Your task to perform on an android device: change alarm snooze length Image 0: 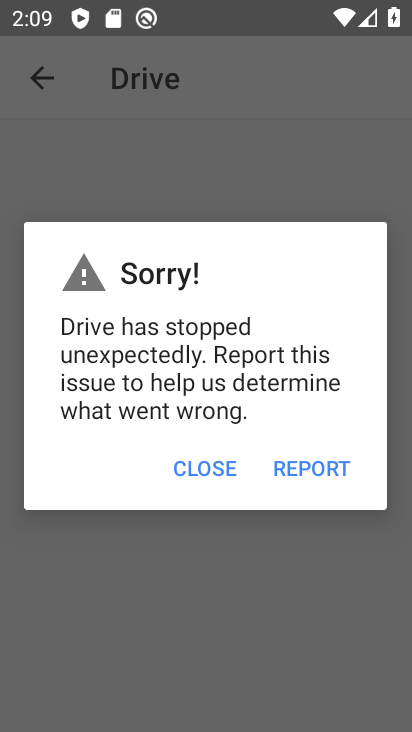
Step 0: press home button
Your task to perform on an android device: change alarm snooze length Image 1: 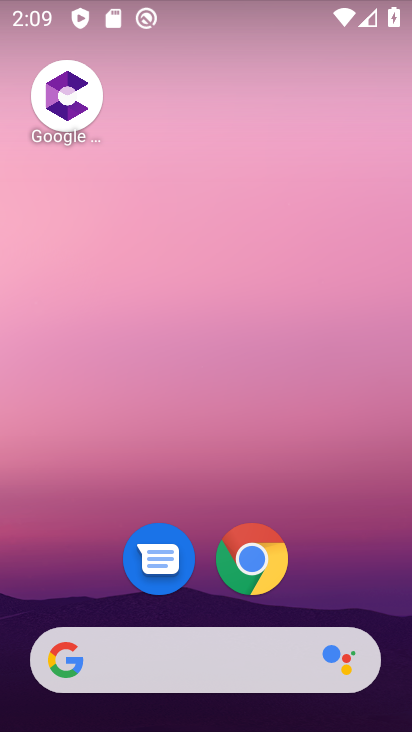
Step 1: drag from (337, 561) to (238, 19)
Your task to perform on an android device: change alarm snooze length Image 2: 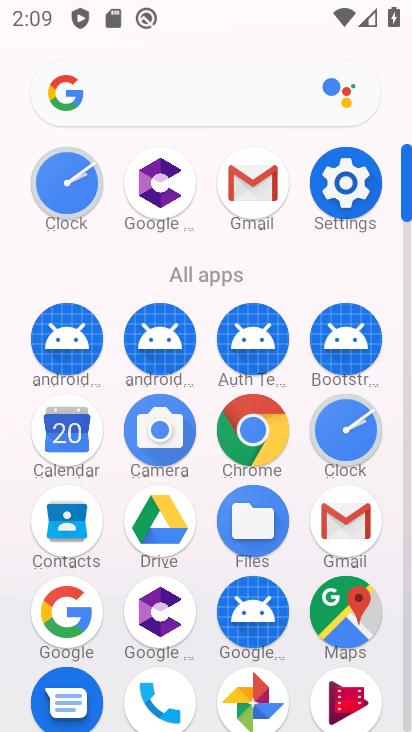
Step 2: click (346, 429)
Your task to perform on an android device: change alarm snooze length Image 3: 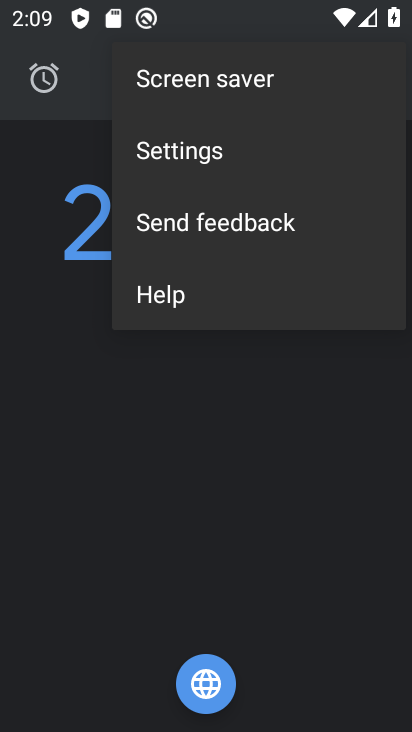
Step 3: click (194, 142)
Your task to perform on an android device: change alarm snooze length Image 4: 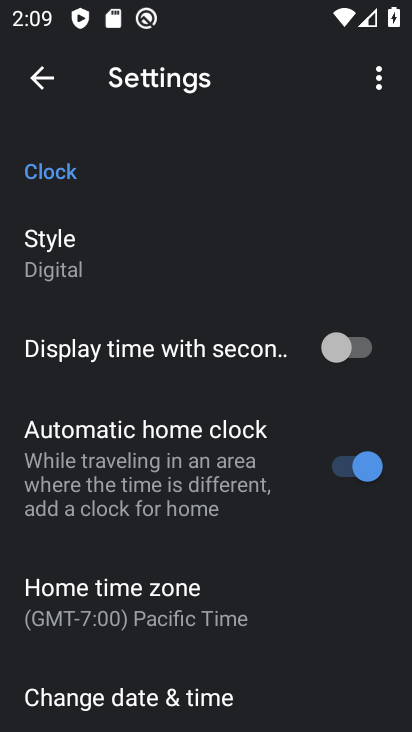
Step 4: drag from (147, 530) to (197, 319)
Your task to perform on an android device: change alarm snooze length Image 5: 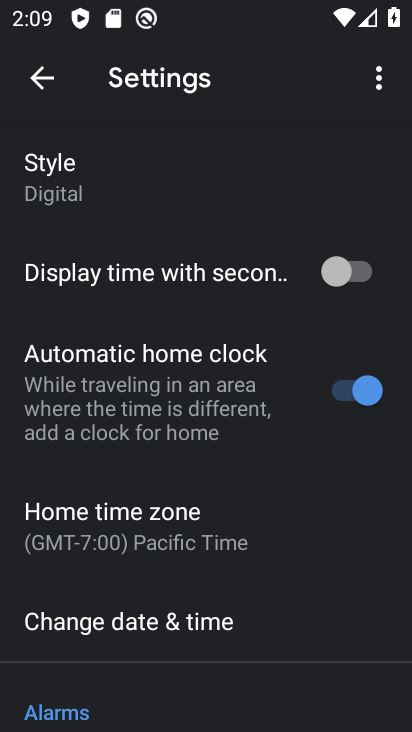
Step 5: drag from (211, 673) to (231, 313)
Your task to perform on an android device: change alarm snooze length Image 6: 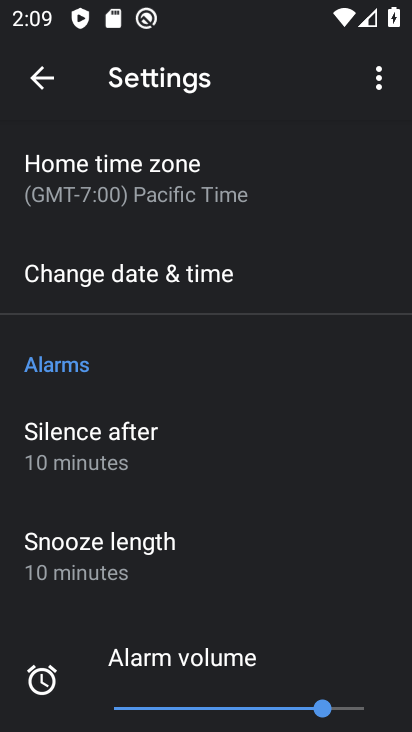
Step 6: click (151, 536)
Your task to perform on an android device: change alarm snooze length Image 7: 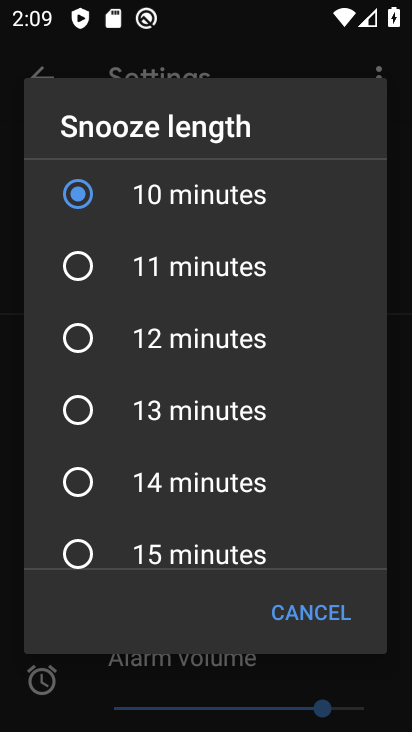
Step 7: click (90, 282)
Your task to perform on an android device: change alarm snooze length Image 8: 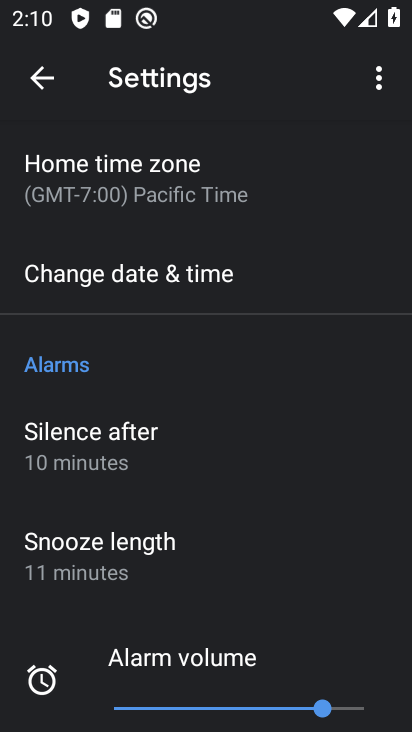
Step 8: task complete